Your task to perform on an android device: turn pop-ups on in chrome Image 0: 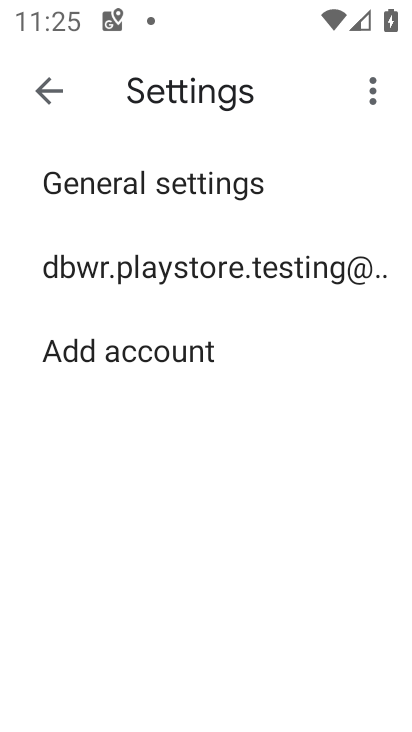
Step 0: press home button
Your task to perform on an android device: turn pop-ups on in chrome Image 1: 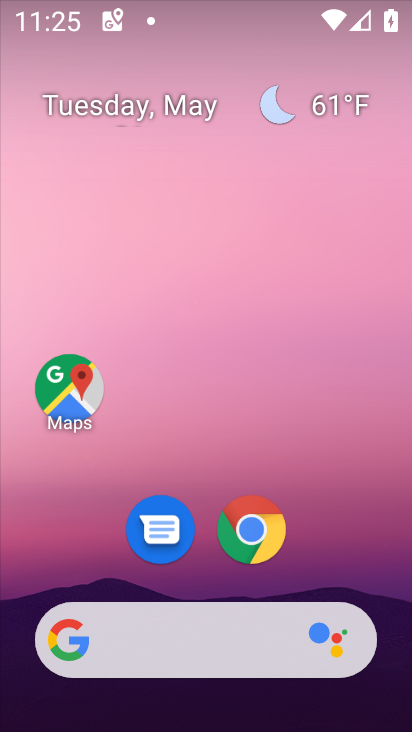
Step 1: click (267, 529)
Your task to perform on an android device: turn pop-ups on in chrome Image 2: 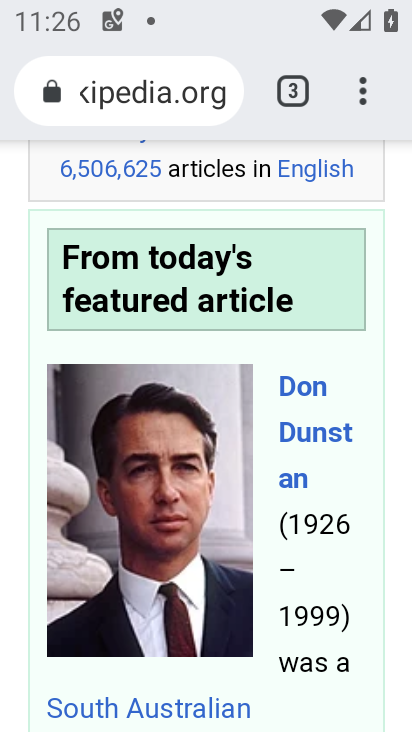
Step 2: click (364, 93)
Your task to perform on an android device: turn pop-ups on in chrome Image 3: 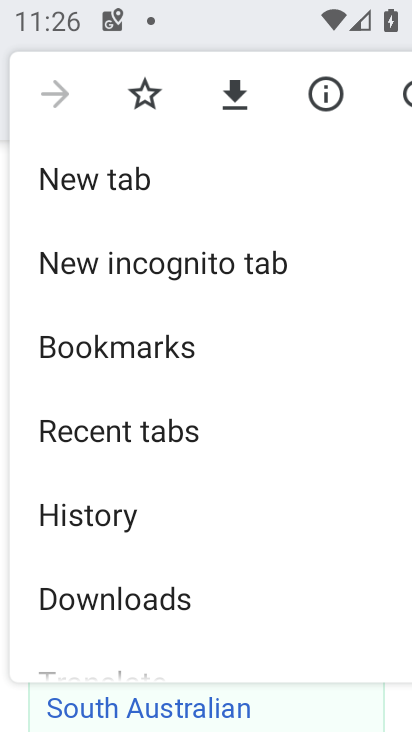
Step 3: drag from (200, 541) to (142, 156)
Your task to perform on an android device: turn pop-ups on in chrome Image 4: 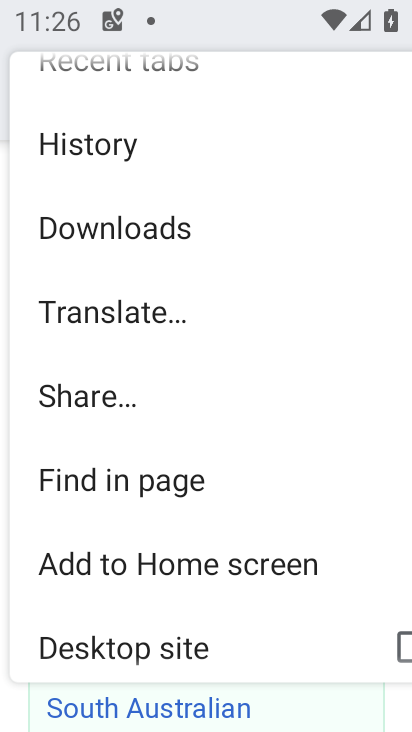
Step 4: drag from (145, 529) to (157, 167)
Your task to perform on an android device: turn pop-ups on in chrome Image 5: 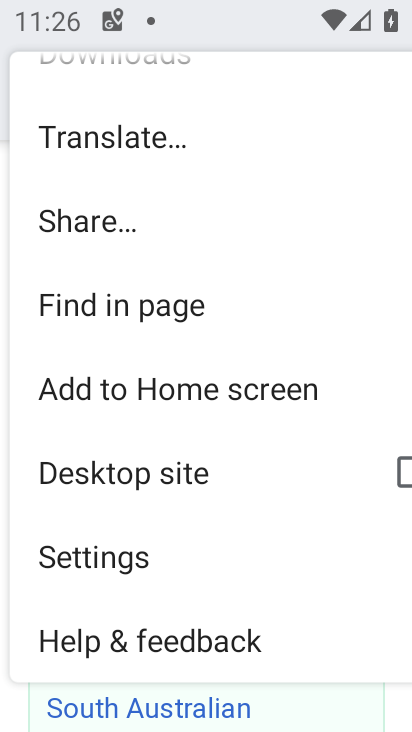
Step 5: click (100, 550)
Your task to perform on an android device: turn pop-ups on in chrome Image 6: 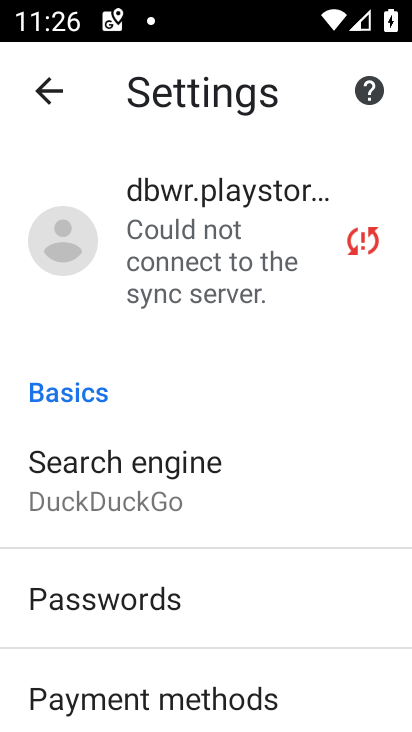
Step 6: drag from (143, 638) to (135, 116)
Your task to perform on an android device: turn pop-ups on in chrome Image 7: 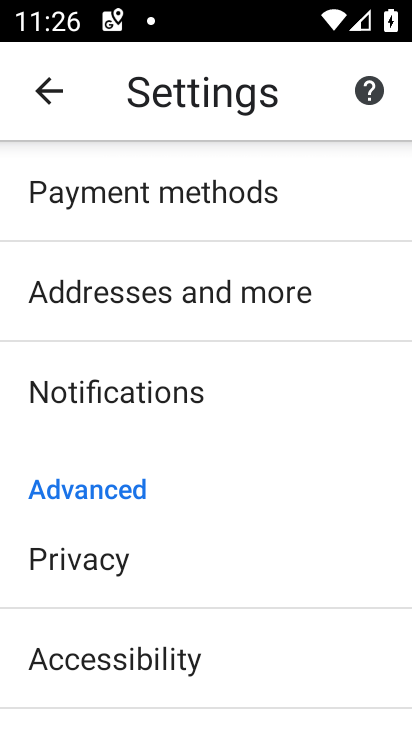
Step 7: drag from (127, 657) to (137, 376)
Your task to perform on an android device: turn pop-ups on in chrome Image 8: 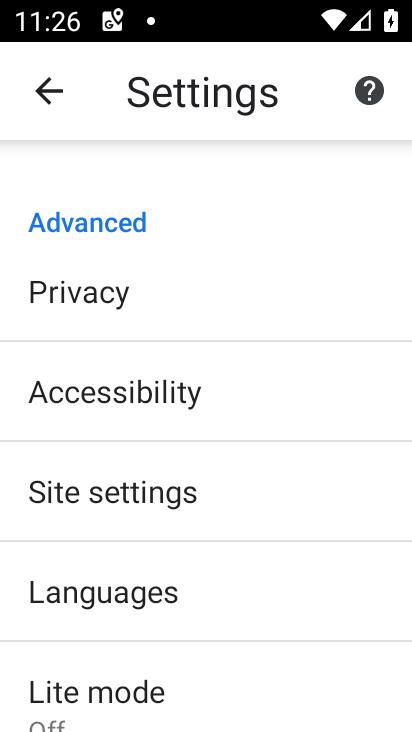
Step 8: click (119, 501)
Your task to perform on an android device: turn pop-ups on in chrome Image 9: 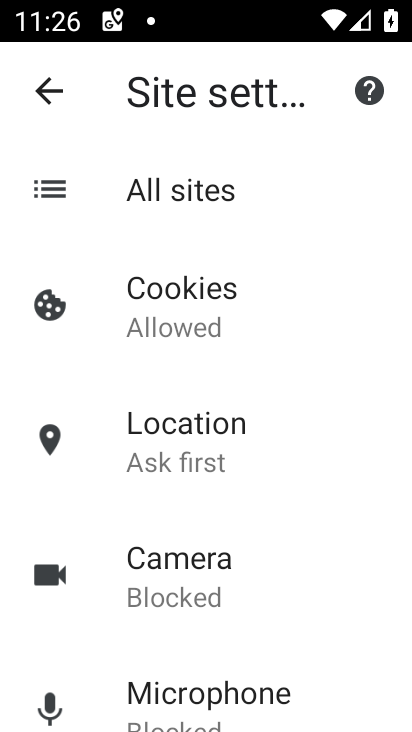
Step 9: drag from (156, 626) to (150, 202)
Your task to perform on an android device: turn pop-ups on in chrome Image 10: 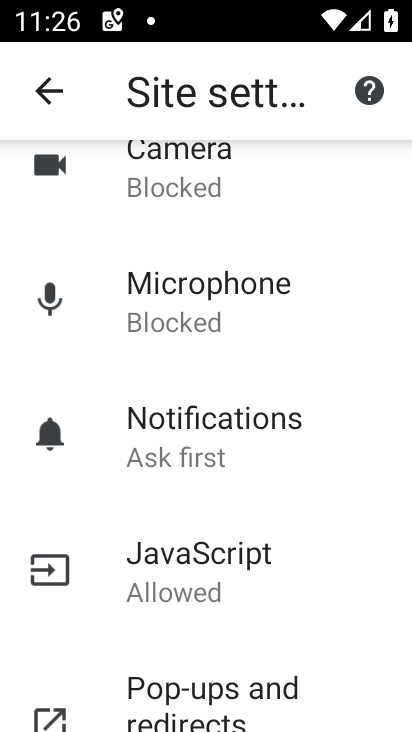
Step 10: drag from (185, 547) to (190, 370)
Your task to perform on an android device: turn pop-ups on in chrome Image 11: 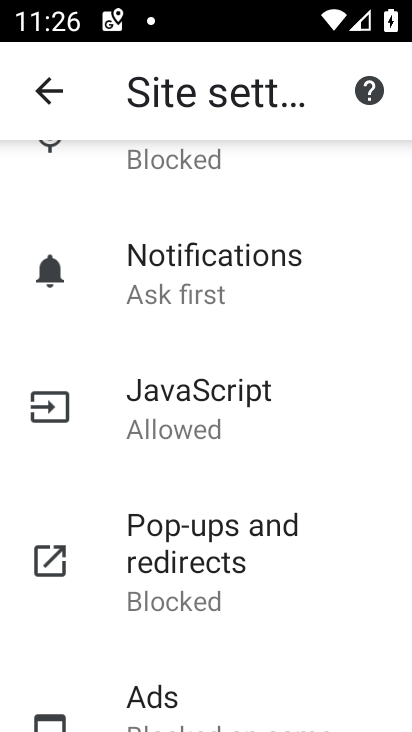
Step 11: click (183, 530)
Your task to perform on an android device: turn pop-ups on in chrome Image 12: 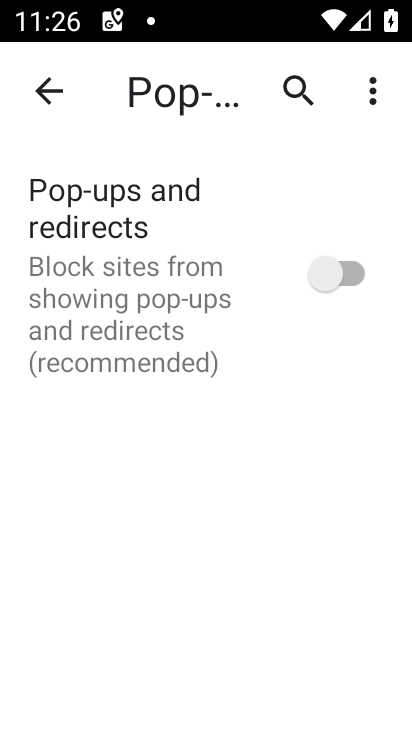
Step 12: click (334, 281)
Your task to perform on an android device: turn pop-ups on in chrome Image 13: 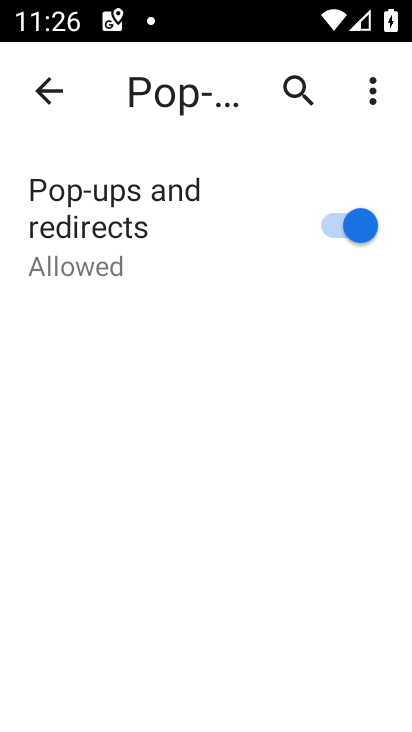
Step 13: task complete